Your task to perform on an android device: What's the weather? Image 0: 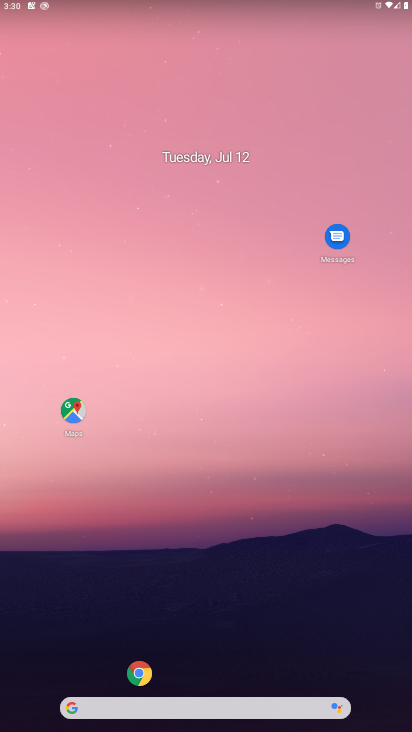
Step 0: click (93, 707)
Your task to perform on an android device: What's the weather? Image 1: 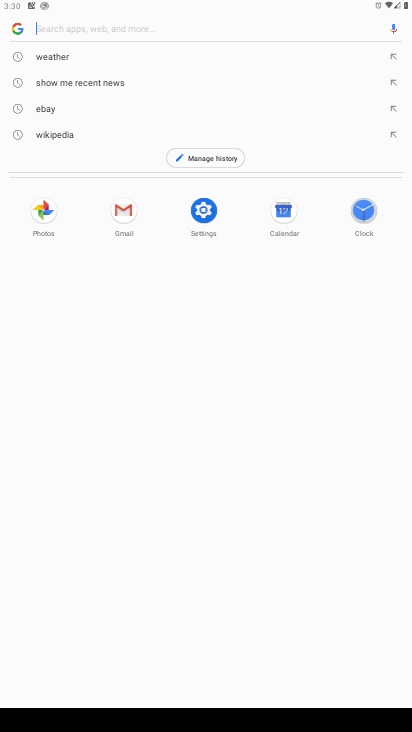
Step 1: click (226, 514)
Your task to perform on an android device: What's the weather? Image 2: 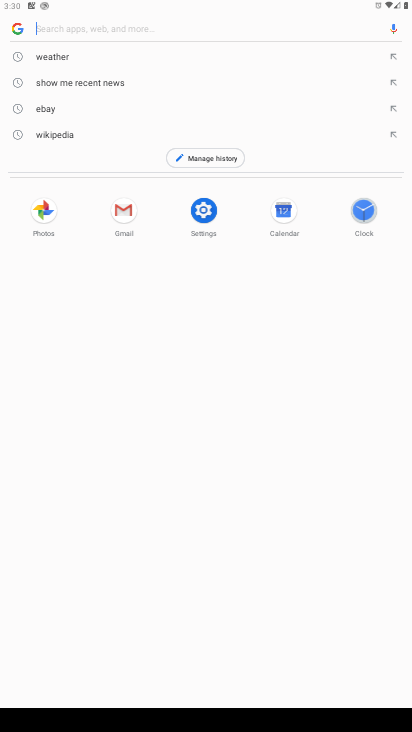
Step 2: type "What's the weather?"
Your task to perform on an android device: What's the weather? Image 3: 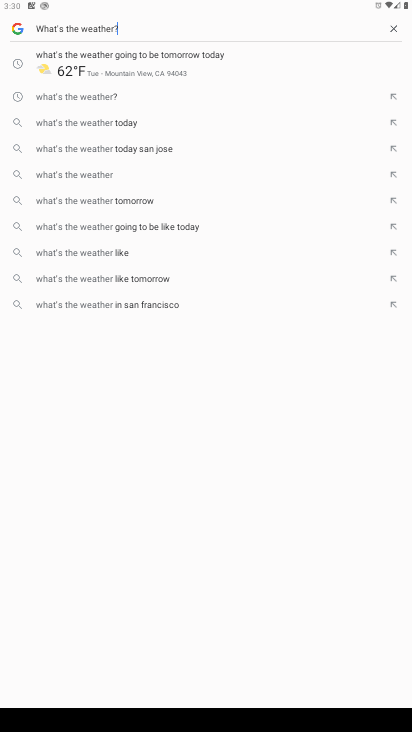
Step 3: type ""
Your task to perform on an android device: What's the weather? Image 4: 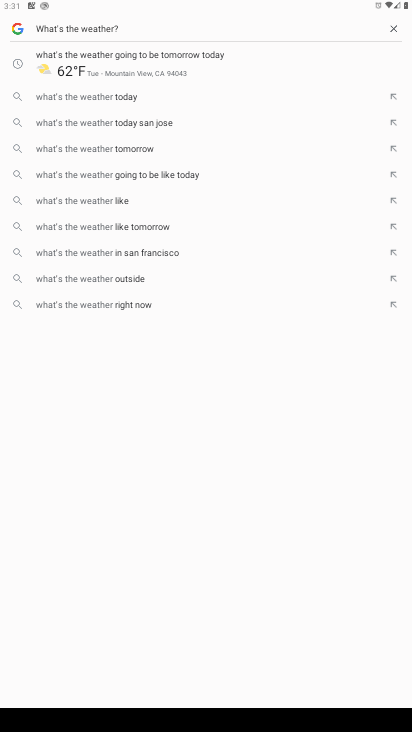
Step 4: type ""
Your task to perform on an android device: What's the weather? Image 5: 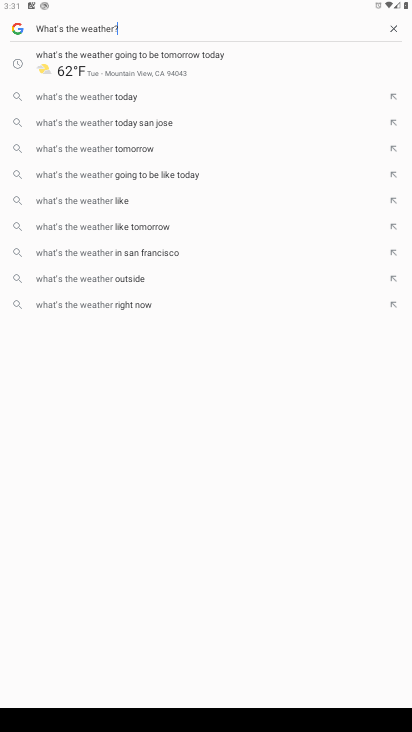
Step 5: type ""
Your task to perform on an android device: What's the weather? Image 6: 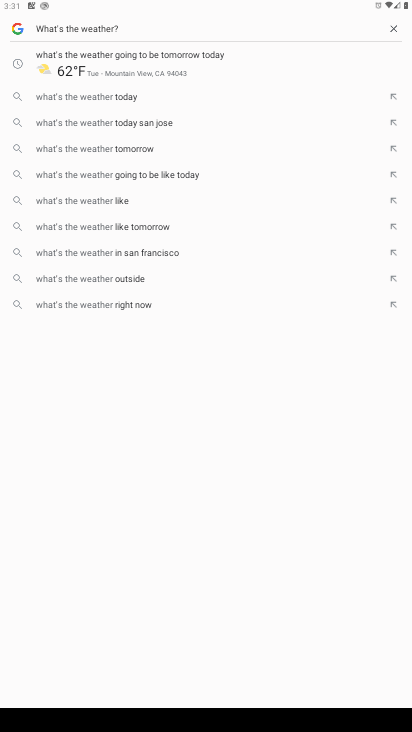
Step 6: task complete